Your task to perform on an android device: turn on bluetooth scan Image 0: 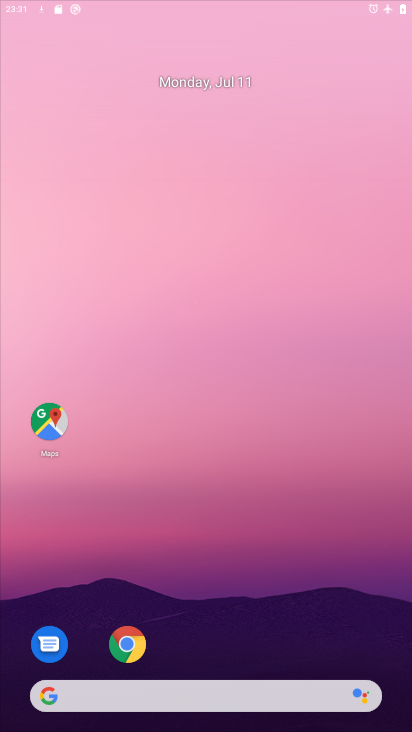
Step 0: drag from (259, 539) to (269, 237)
Your task to perform on an android device: turn on bluetooth scan Image 1: 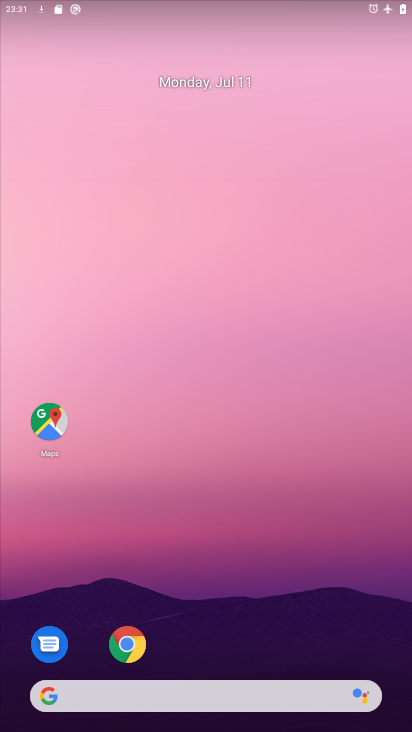
Step 1: drag from (202, 629) to (229, 142)
Your task to perform on an android device: turn on bluetooth scan Image 2: 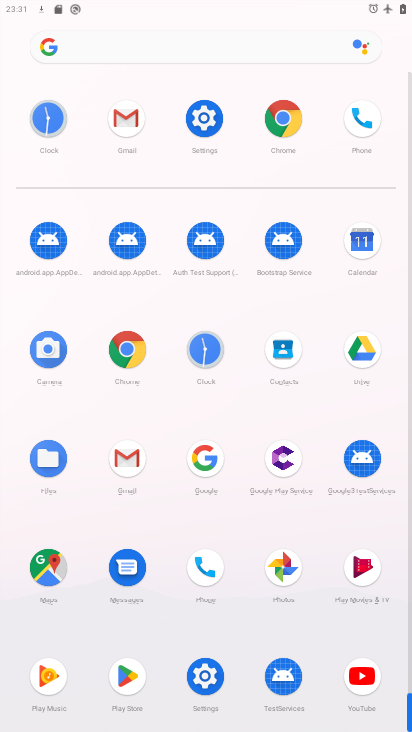
Step 2: click (203, 107)
Your task to perform on an android device: turn on bluetooth scan Image 3: 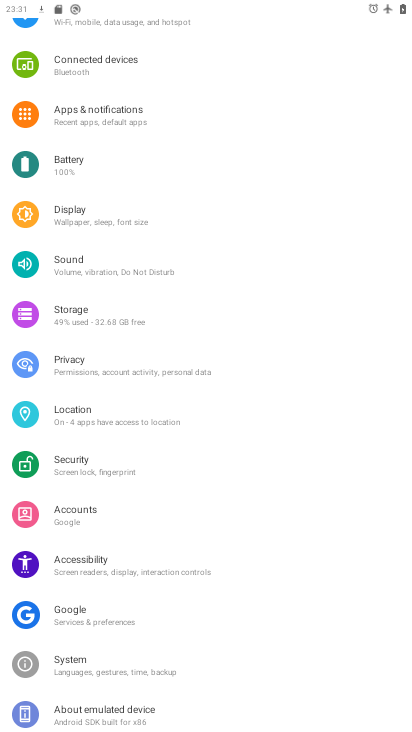
Step 3: drag from (156, 99) to (148, 635)
Your task to perform on an android device: turn on bluetooth scan Image 4: 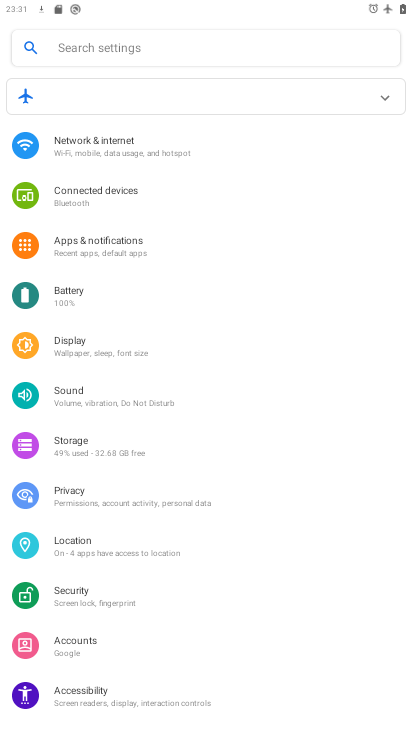
Step 4: click (175, 45)
Your task to perform on an android device: turn on bluetooth scan Image 5: 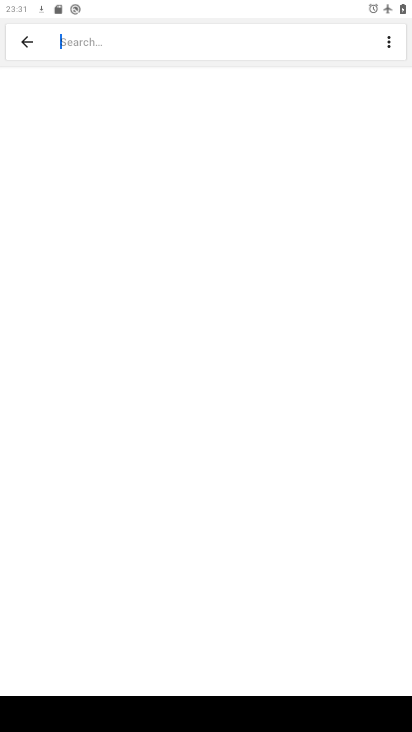
Step 5: type " bluetooth scan "
Your task to perform on an android device: turn on bluetooth scan Image 6: 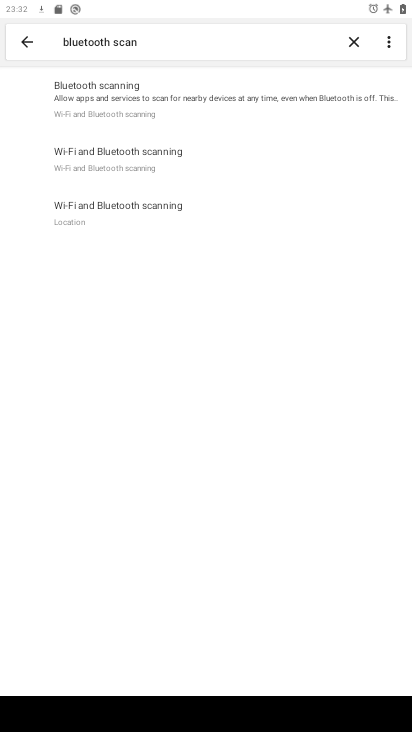
Step 6: click (136, 89)
Your task to perform on an android device: turn on bluetooth scan Image 7: 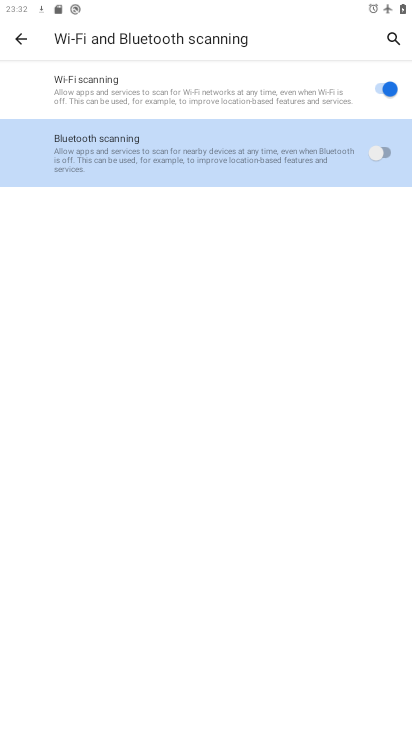
Step 7: click (378, 155)
Your task to perform on an android device: turn on bluetooth scan Image 8: 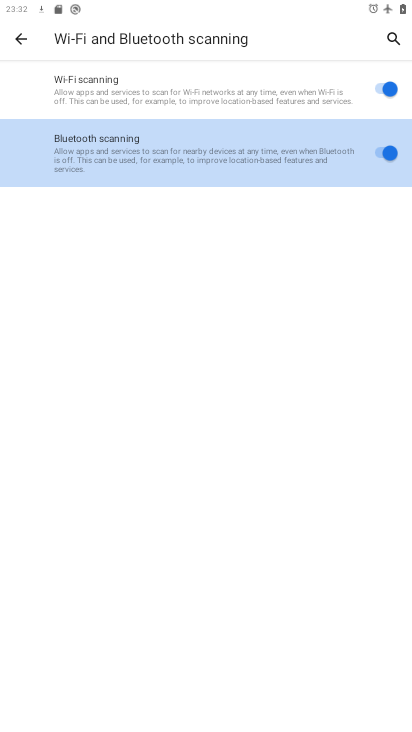
Step 8: task complete